Your task to perform on an android device: turn on javascript in the chrome app Image 0: 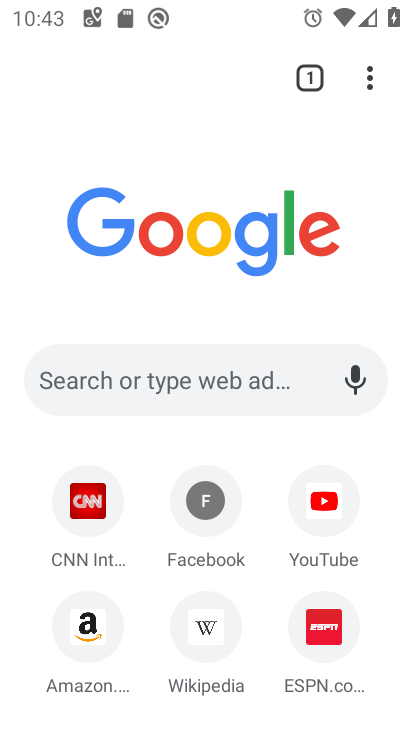
Step 0: click (374, 87)
Your task to perform on an android device: turn on javascript in the chrome app Image 1: 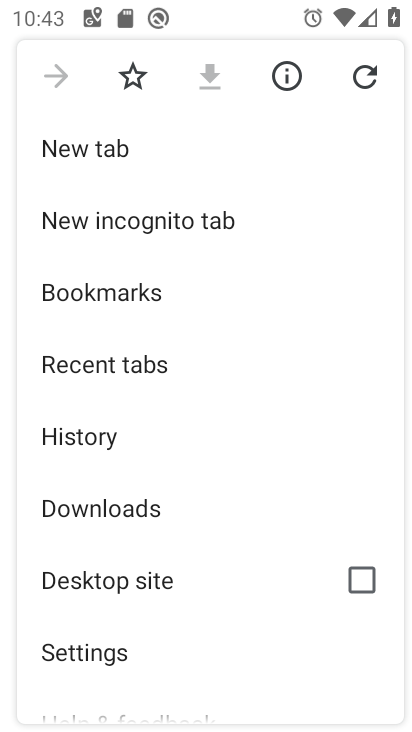
Step 1: click (123, 654)
Your task to perform on an android device: turn on javascript in the chrome app Image 2: 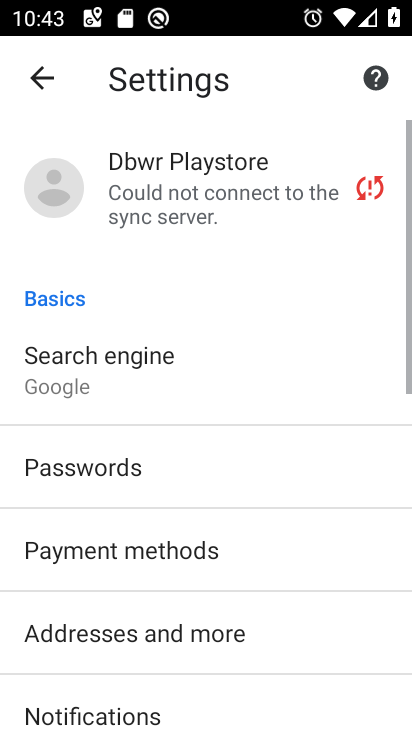
Step 2: drag from (123, 654) to (168, 187)
Your task to perform on an android device: turn on javascript in the chrome app Image 3: 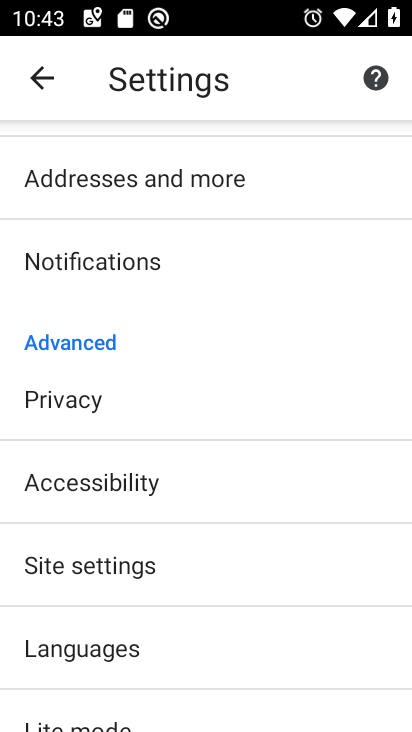
Step 3: click (196, 573)
Your task to perform on an android device: turn on javascript in the chrome app Image 4: 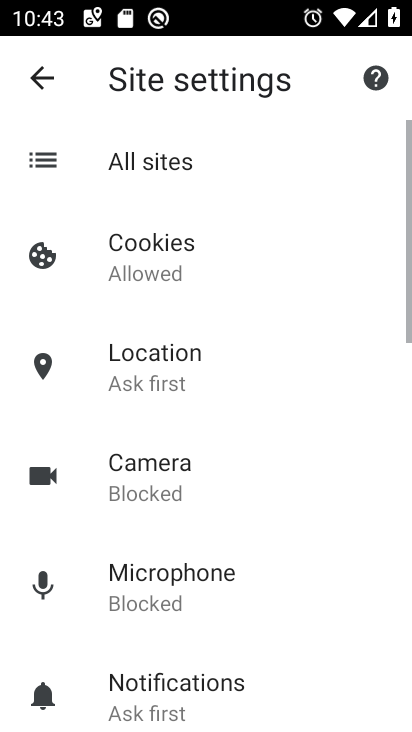
Step 4: drag from (135, 672) to (209, 124)
Your task to perform on an android device: turn on javascript in the chrome app Image 5: 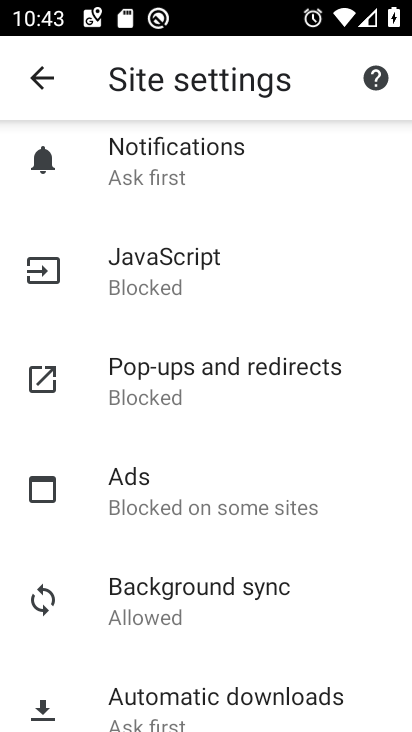
Step 5: click (206, 280)
Your task to perform on an android device: turn on javascript in the chrome app Image 6: 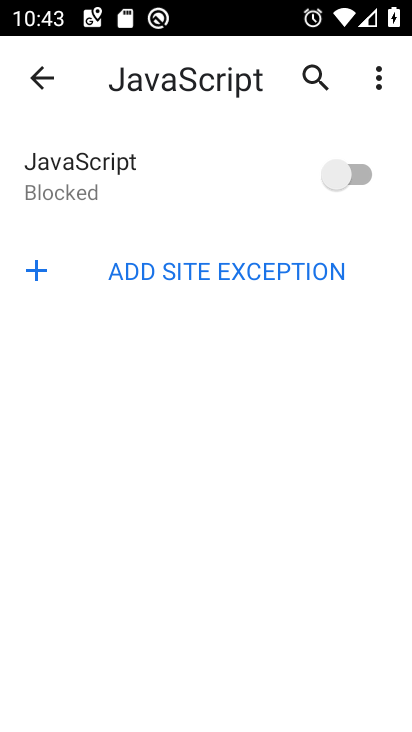
Step 6: click (315, 179)
Your task to perform on an android device: turn on javascript in the chrome app Image 7: 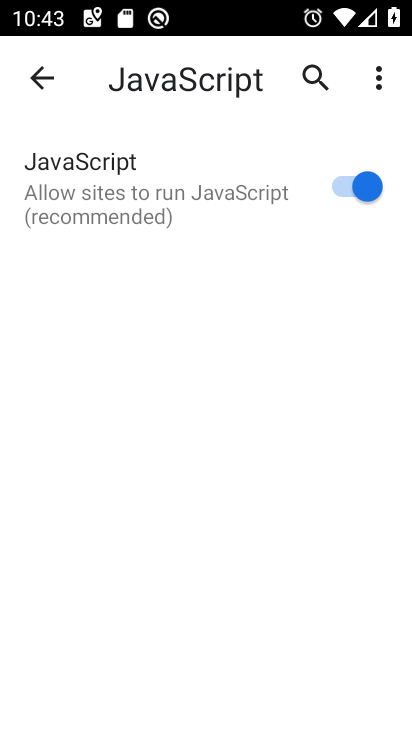
Step 7: task complete